Your task to perform on an android device: turn notification dots on Image 0: 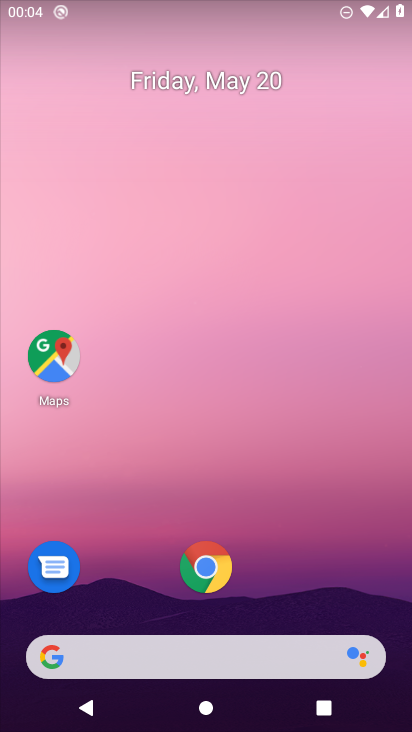
Step 0: drag from (268, 617) to (242, 20)
Your task to perform on an android device: turn notification dots on Image 1: 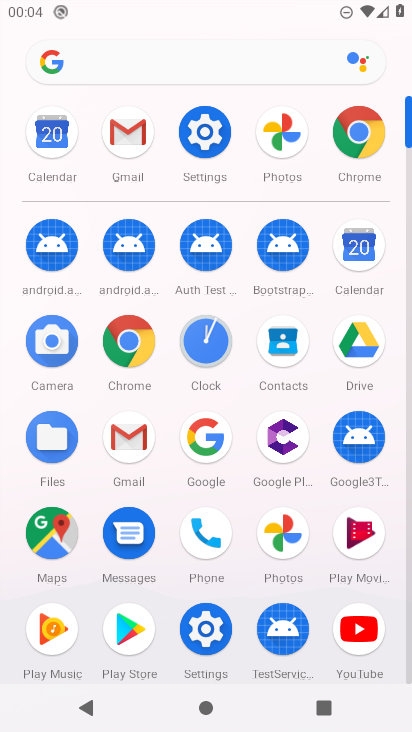
Step 1: click (200, 127)
Your task to perform on an android device: turn notification dots on Image 2: 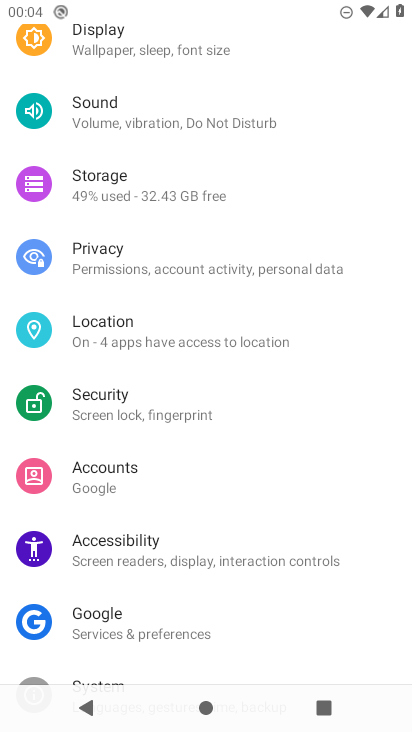
Step 2: drag from (154, 109) to (128, 569)
Your task to perform on an android device: turn notification dots on Image 3: 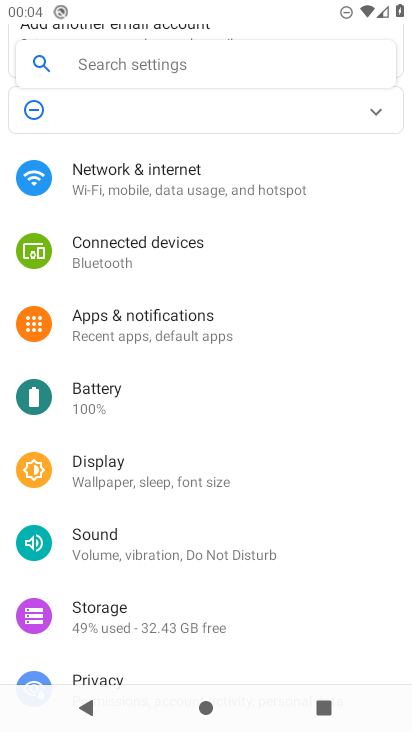
Step 3: click (178, 324)
Your task to perform on an android device: turn notification dots on Image 4: 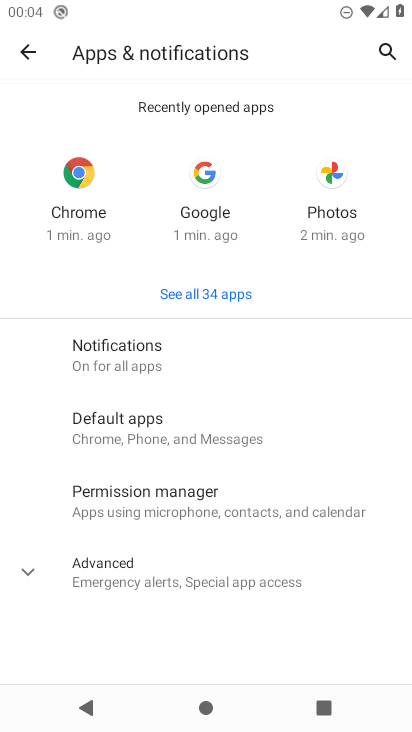
Step 4: click (169, 354)
Your task to perform on an android device: turn notification dots on Image 5: 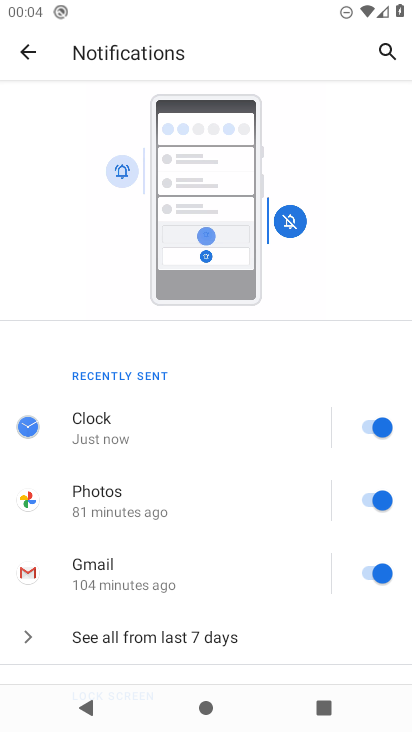
Step 5: drag from (238, 613) to (298, 139)
Your task to perform on an android device: turn notification dots on Image 6: 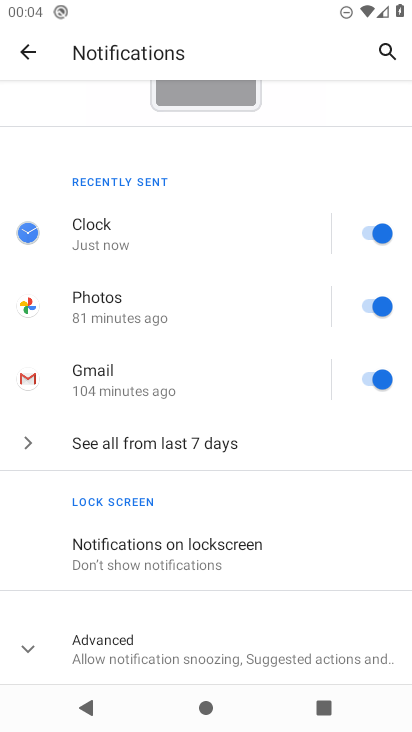
Step 6: click (33, 641)
Your task to perform on an android device: turn notification dots on Image 7: 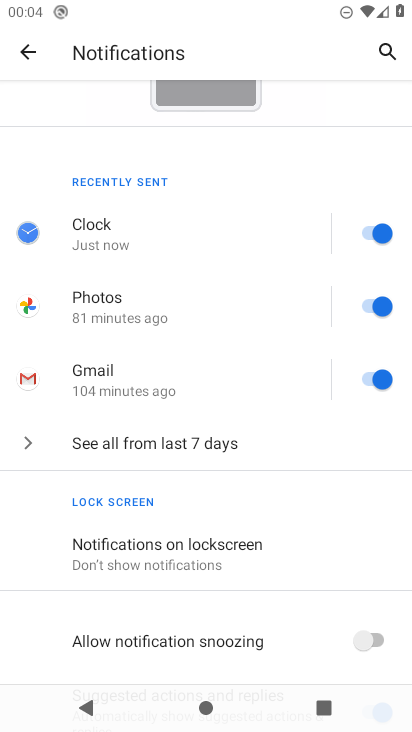
Step 7: drag from (196, 610) to (242, 121)
Your task to perform on an android device: turn notification dots on Image 8: 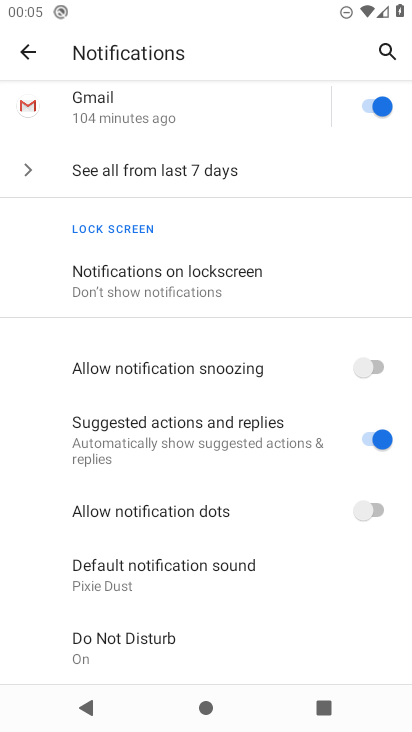
Step 8: click (375, 505)
Your task to perform on an android device: turn notification dots on Image 9: 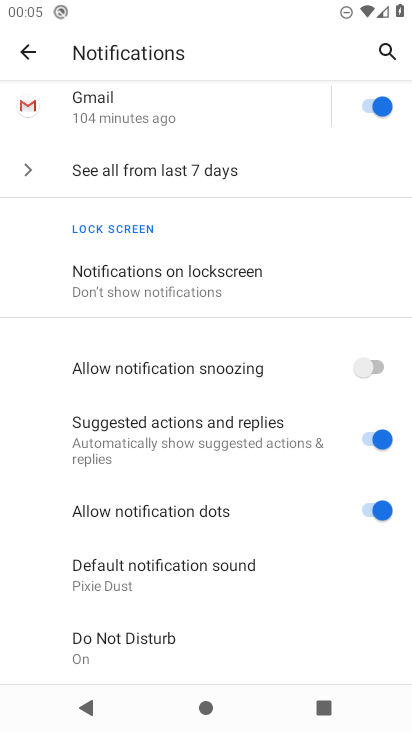
Step 9: task complete